Your task to perform on an android device: Open Amazon Image 0: 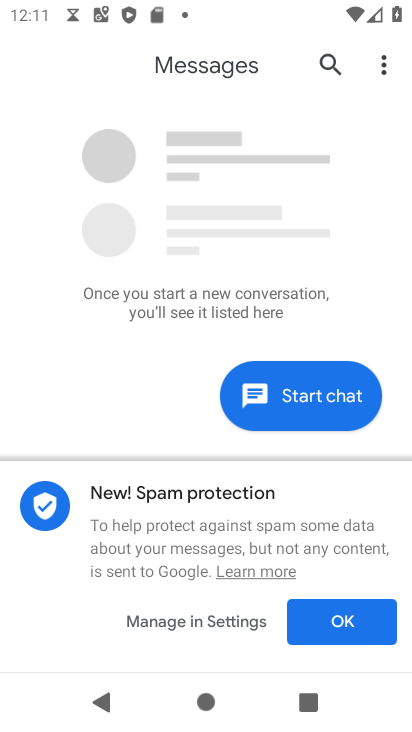
Step 0: press home button
Your task to perform on an android device: Open Amazon Image 1: 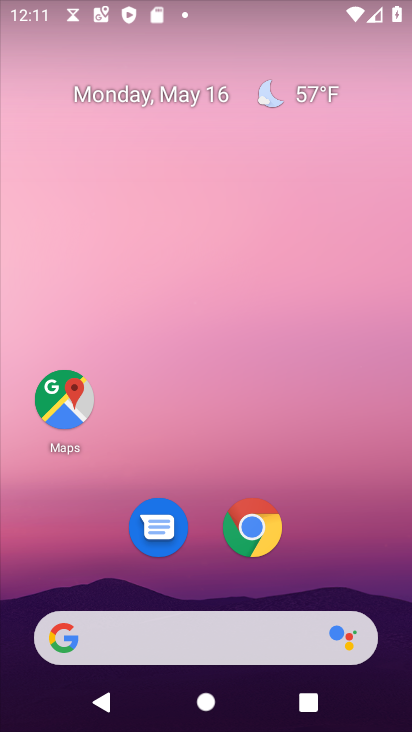
Step 1: click (259, 530)
Your task to perform on an android device: Open Amazon Image 2: 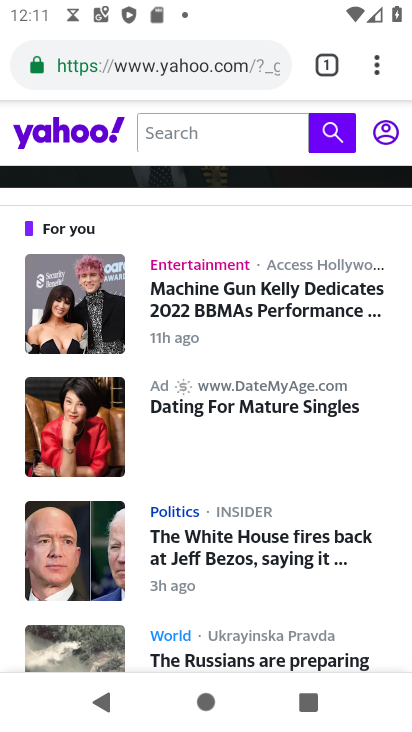
Step 2: click (374, 69)
Your task to perform on an android device: Open Amazon Image 3: 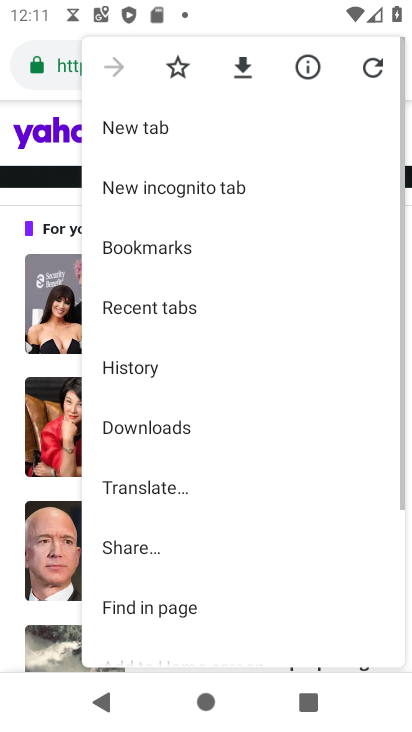
Step 3: click (157, 135)
Your task to perform on an android device: Open Amazon Image 4: 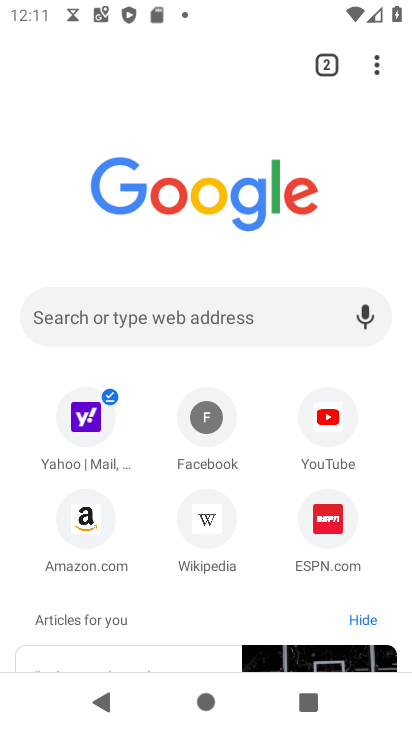
Step 4: click (76, 534)
Your task to perform on an android device: Open Amazon Image 5: 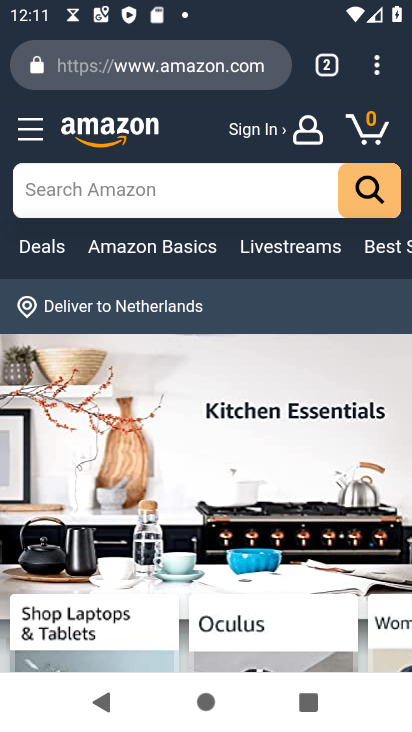
Step 5: task complete